Your task to perform on an android device: Go to location settings Image 0: 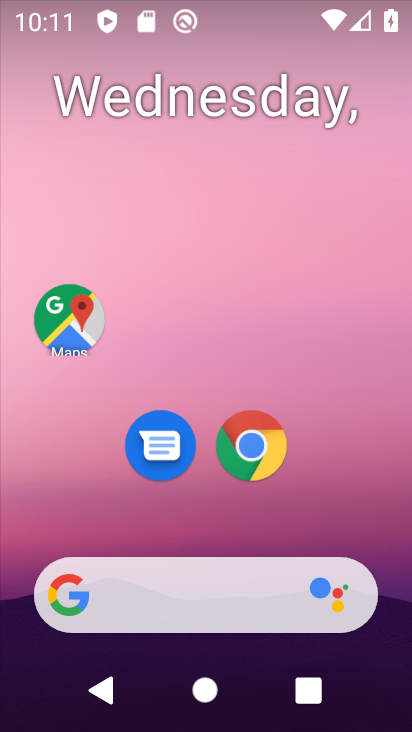
Step 0: drag from (196, 499) to (253, 30)
Your task to perform on an android device: Go to location settings Image 1: 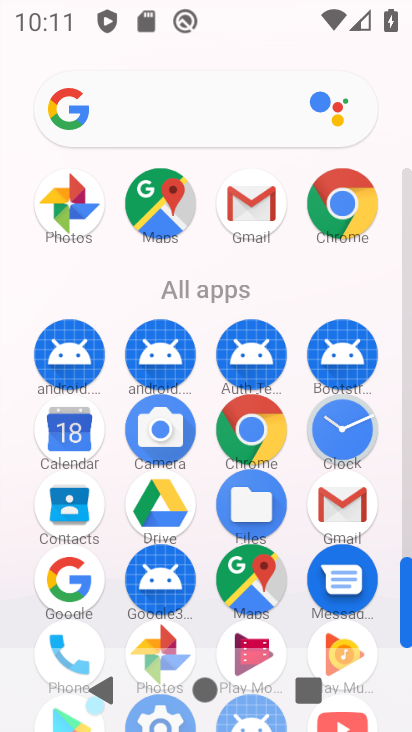
Step 1: drag from (191, 518) to (289, 108)
Your task to perform on an android device: Go to location settings Image 2: 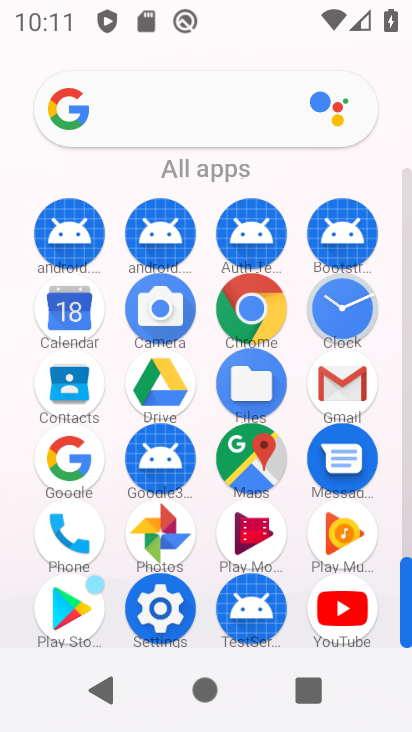
Step 2: click (165, 596)
Your task to perform on an android device: Go to location settings Image 3: 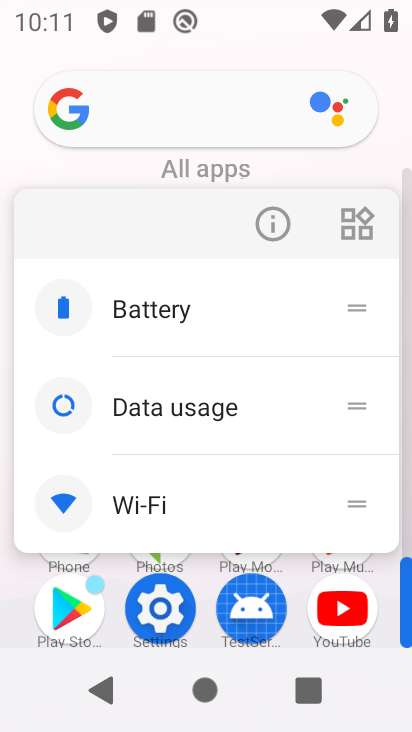
Step 3: click (180, 613)
Your task to perform on an android device: Go to location settings Image 4: 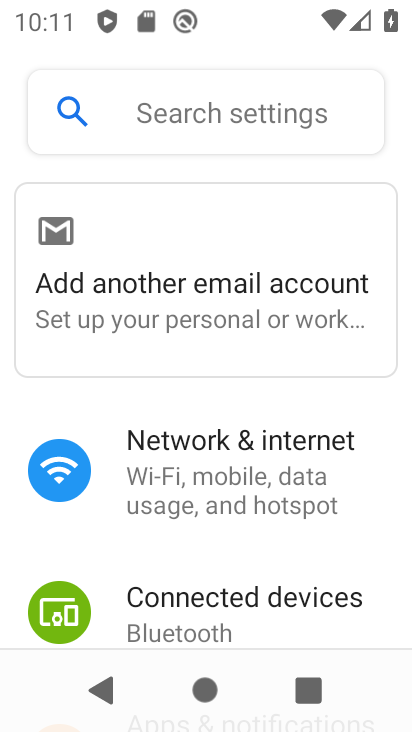
Step 4: drag from (230, 318) to (284, 110)
Your task to perform on an android device: Go to location settings Image 5: 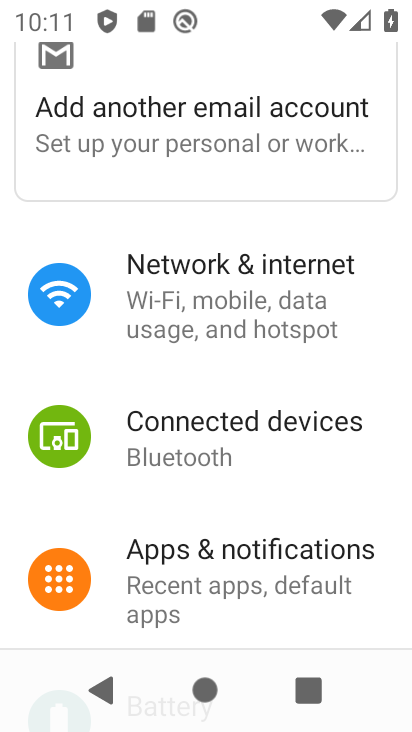
Step 5: drag from (205, 601) to (317, 48)
Your task to perform on an android device: Go to location settings Image 6: 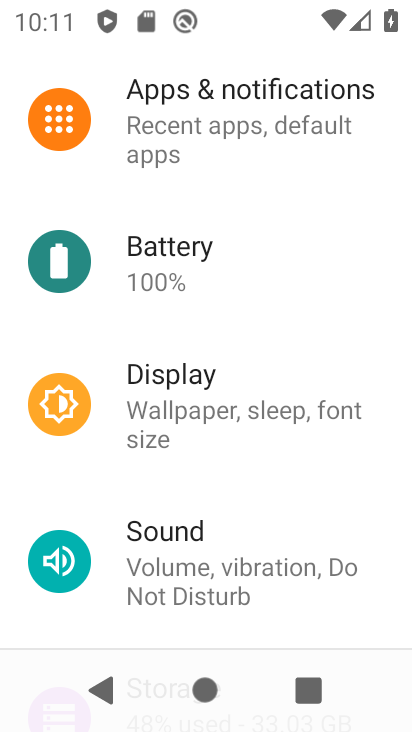
Step 6: drag from (197, 541) to (284, 43)
Your task to perform on an android device: Go to location settings Image 7: 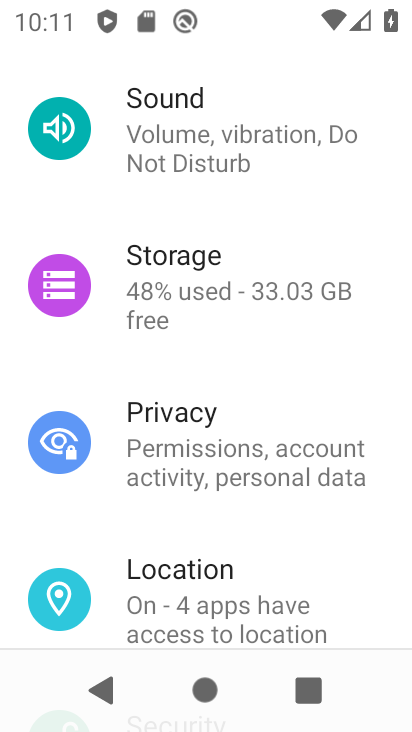
Step 7: click (164, 587)
Your task to perform on an android device: Go to location settings Image 8: 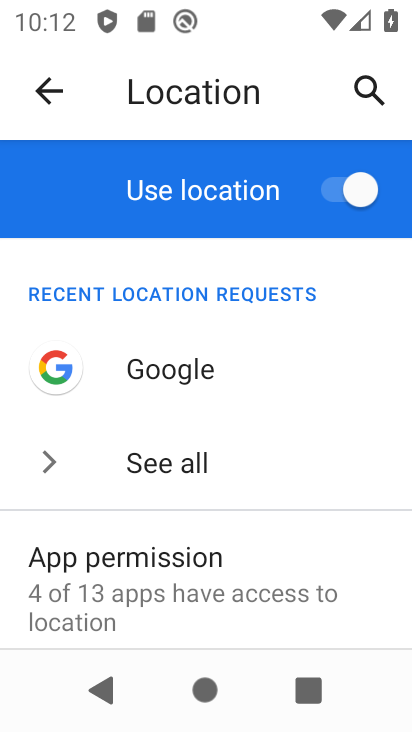
Step 8: task complete